Your task to perform on an android device: check the backup settings in the google photos Image 0: 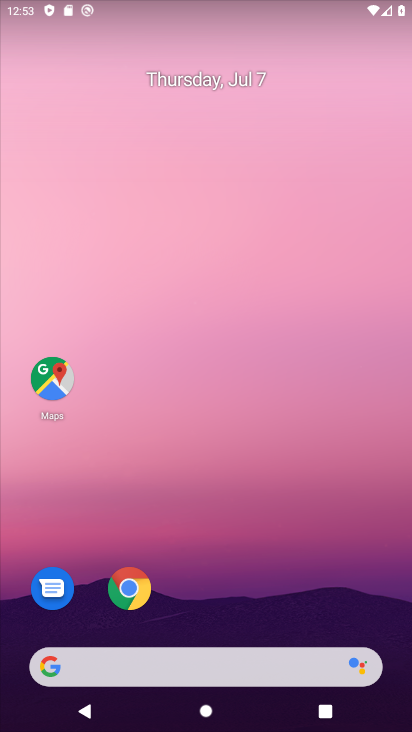
Step 0: drag from (159, 586) to (257, 130)
Your task to perform on an android device: check the backup settings in the google photos Image 1: 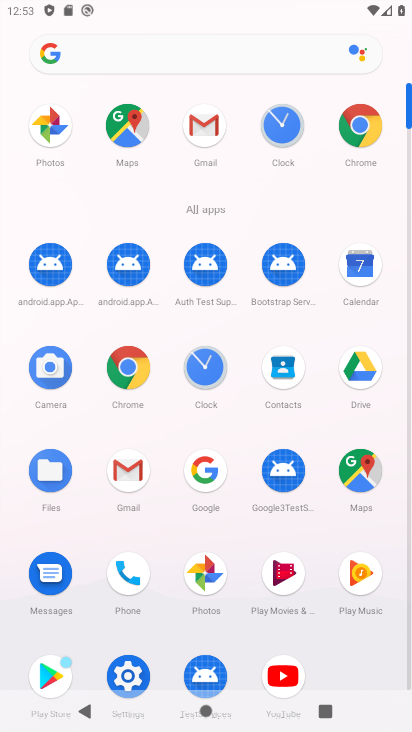
Step 1: click (184, 574)
Your task to perform on an android device: check the backup settings in the google photos Image 2: 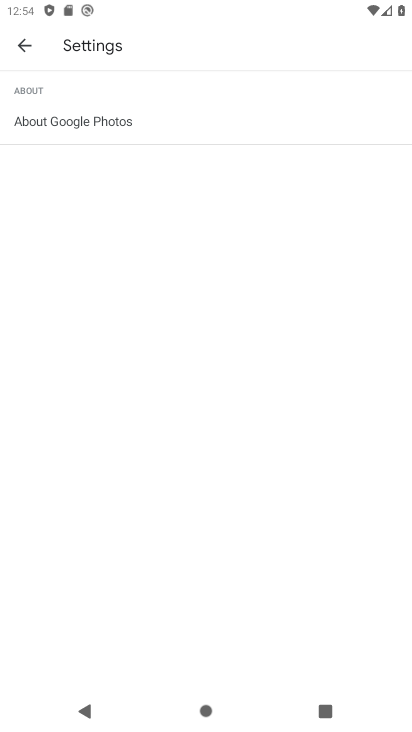
Step 2: press back button
Your task to perform on an android device: check the backup settings in the google photos Image 3: 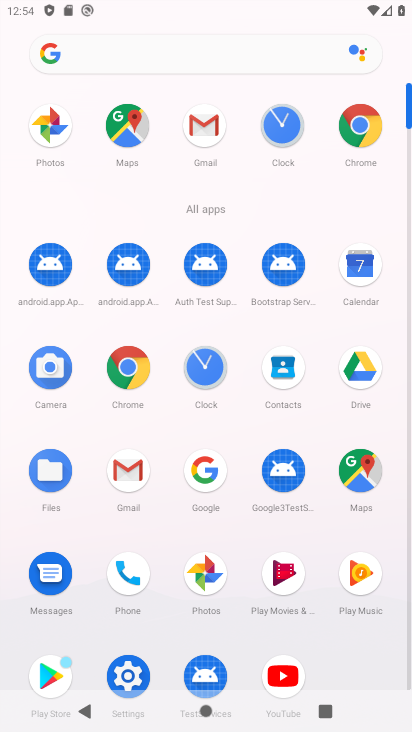
Step 3: click (191, 572)
Your task to perform on an android device: check the backup settings in the google photos Image 4: 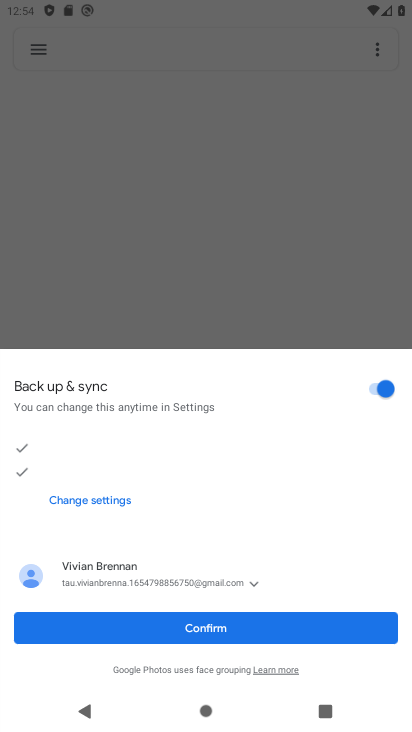
Step 4: click (234, 635)
Your task to perform on an android device: check the backup settings in the google photos Image 5: 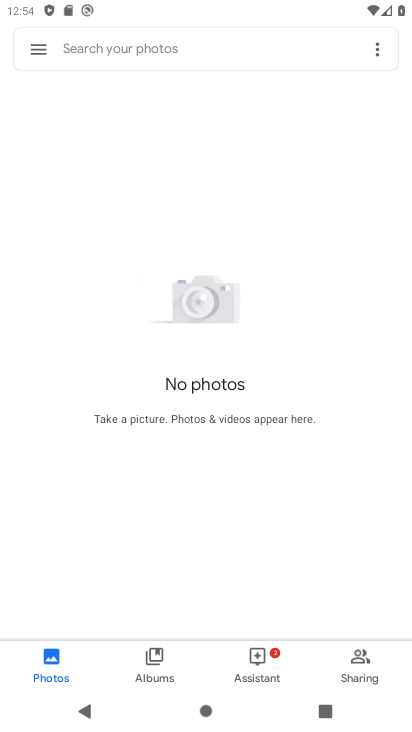
Step 5: click (51, 49)
Your task to perform on an android device: check the backup settings in the google photos Image 6: 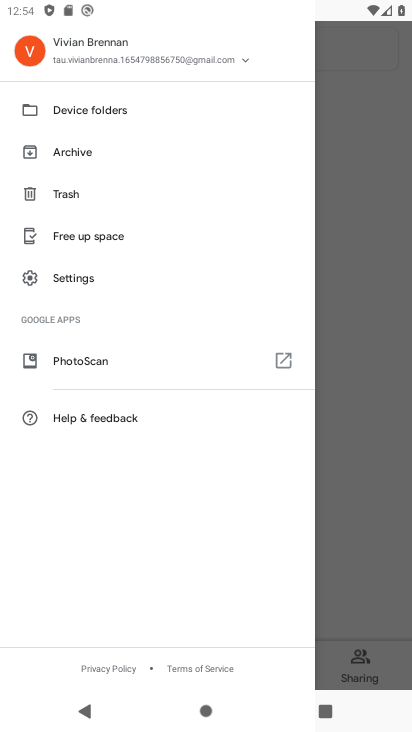
Step 6: click (112, 280)
Your task to perform on an android device: check the backup settings in the google photos Image 7: 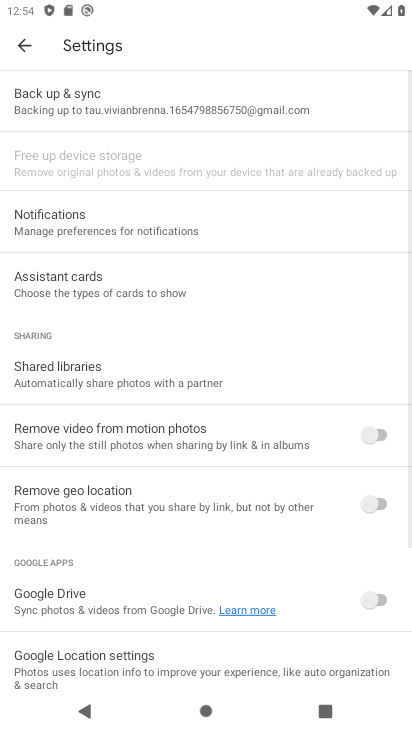
Step 7: click (254, 120)
Your task to perform on an android device: check the backup settings in the google photos Image 8: 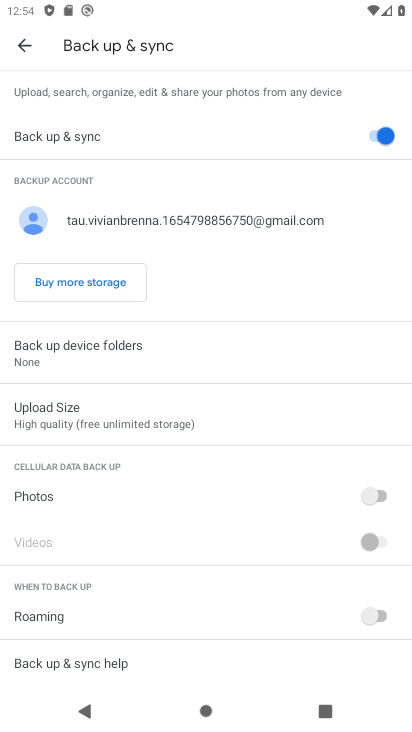
Step 8: task complete